Your task to perform on an android device: open chrome privacy settings Image 0: 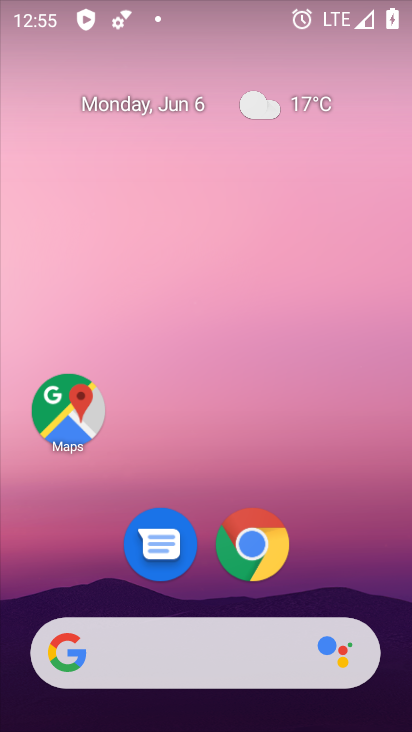
Step 0: drag from (399, 598) to (315, 170)
Your task to perform on an android device: open chrome privacy settings Image 1: 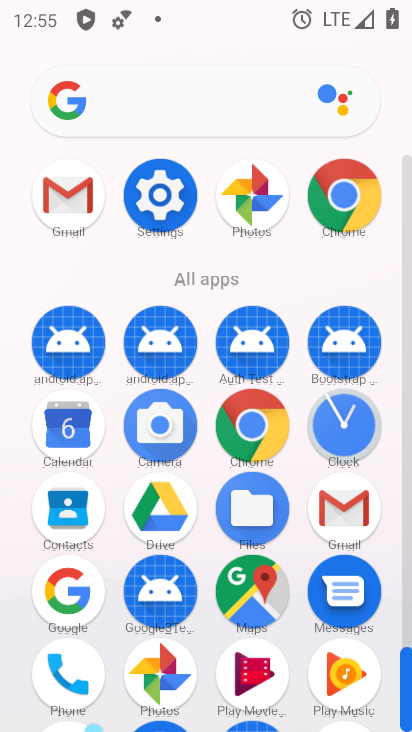
Step 1: click (343, 191)
Your task to perform on an android device: open chrome privacy settings Image 2: 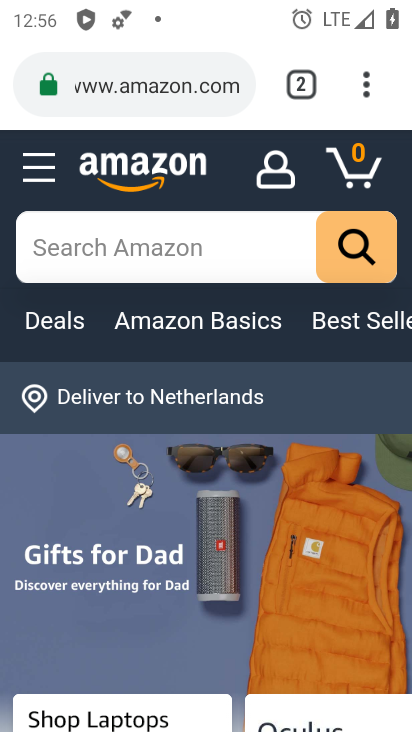
Step 2: click (368, 93)
Your task to perform on an android device: open chrome privacy settings Image 3: 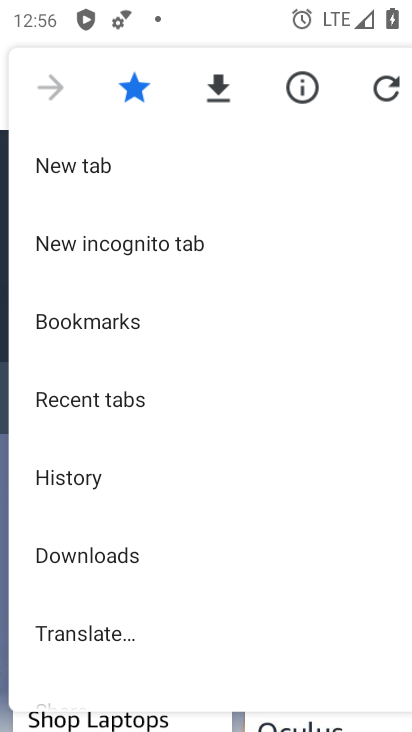
Step 3: drag from (252, 694) to (185, 291)
Your task to perform on an android device: open chrome privacy settings Image 4: 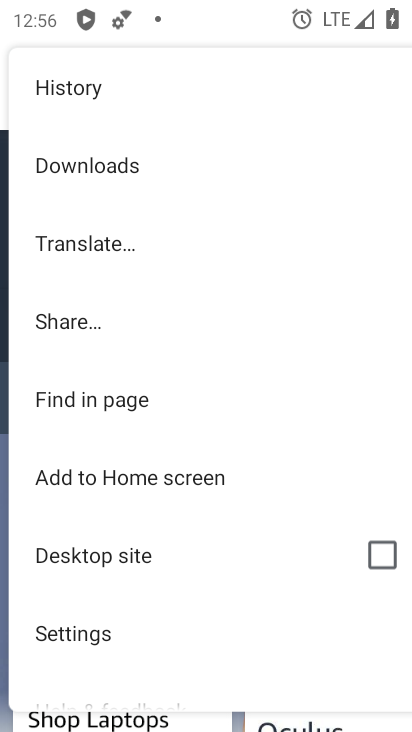
Step 4: drag from (183, 621) to (152, 271)
Your task to perform on an android device: open chrome privacy settings Image 5: 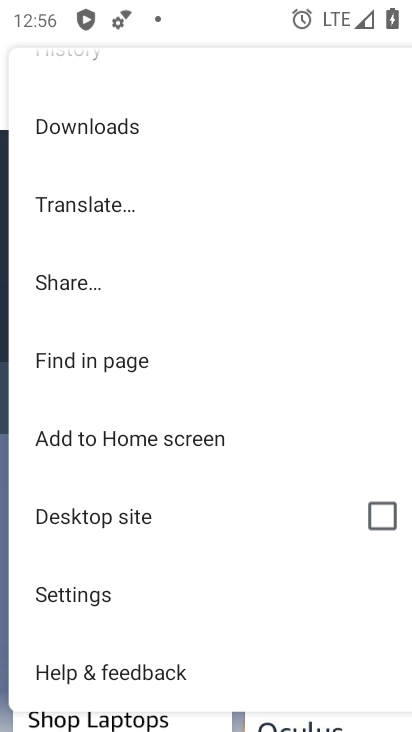
Step 5: click (157, 588)
Your task to perform on an android device: open chrome privacy settings Image 6: 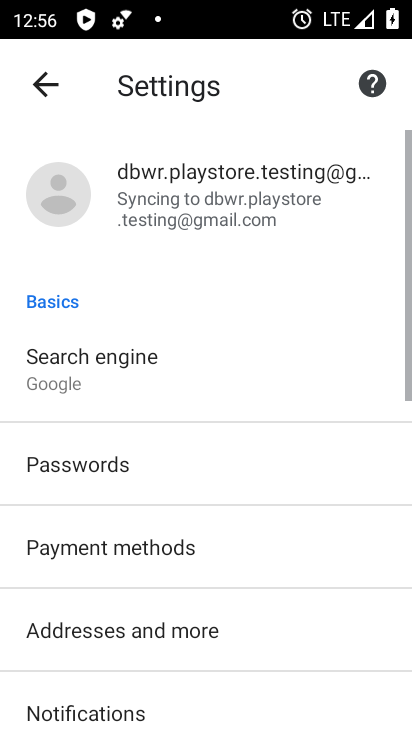
Step 6: drag from (157, 588) to (111, 244)
Your task to perform on an android device: open chrome privacy settings Image 7: 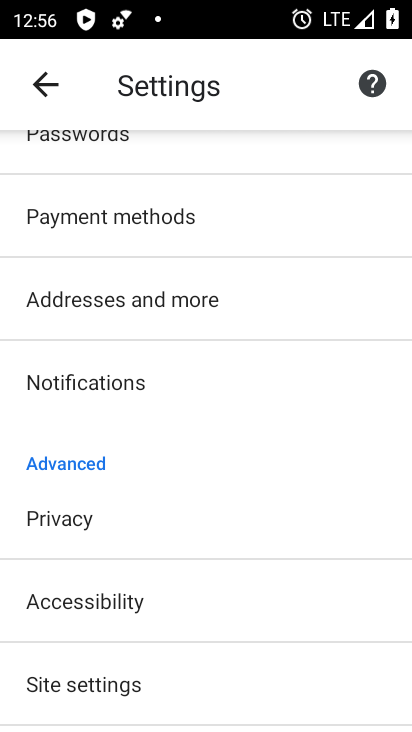
Step 7: click (149, 519)
Your task to perform on an android device: open chrome privacy settings Image 8: 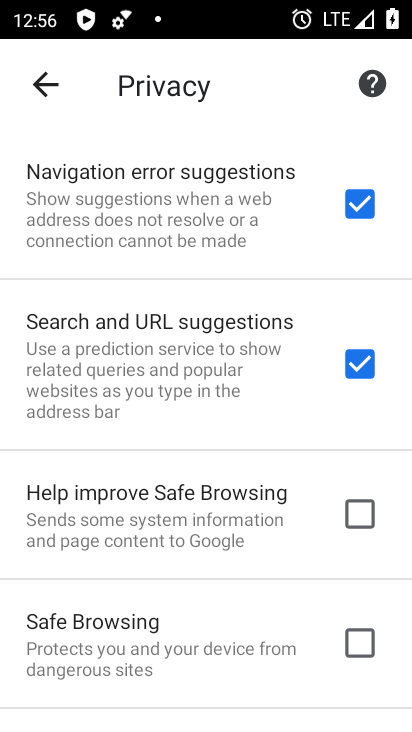
Step 8: task complete